Your task to perform on an android device: Open the web browser Image 0: 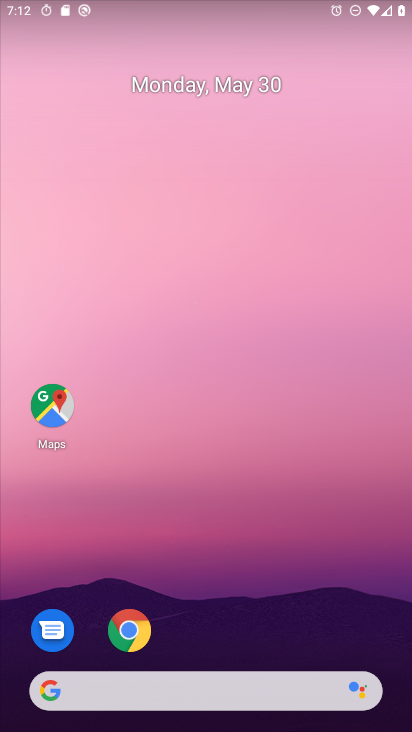
Step 0: drag from (382, 625) to (404, 482)
Your task to perform on an android device: Open the web browser Image 1: 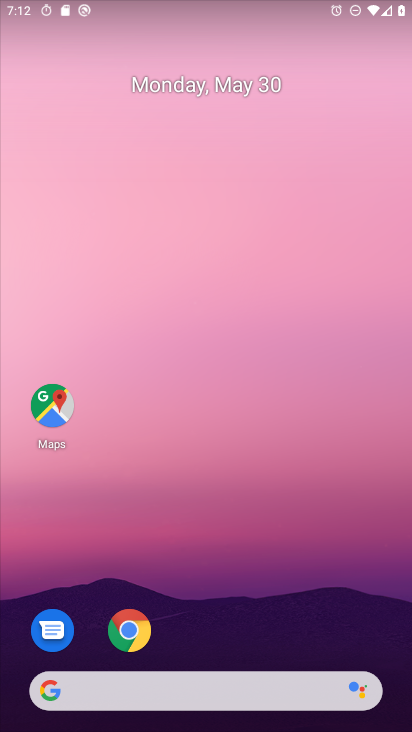
Step 1: click (212, 162)
Your task to perform on an android device: Open the web browser Image 2: 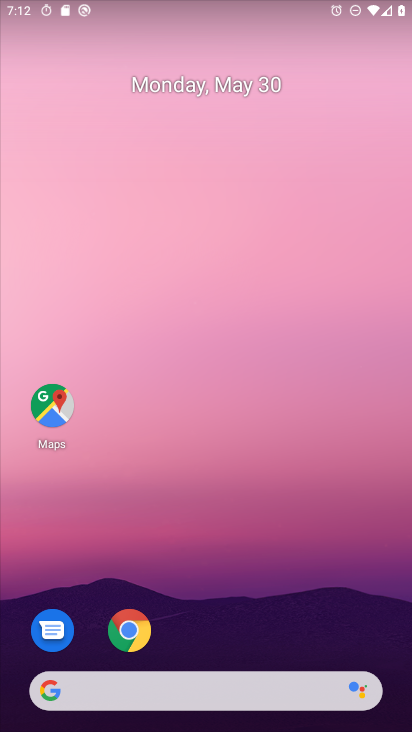
Step 2: drag from (336, 632) to (251, 4)
Your task to perform on an android device: Open the web browser Image 3: 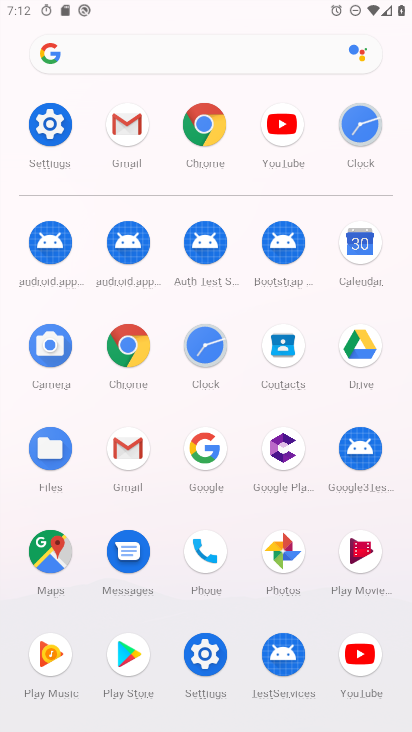
Step 3: click (223, 128)
Your task to perform on an android device: Open the web browser Image 4: 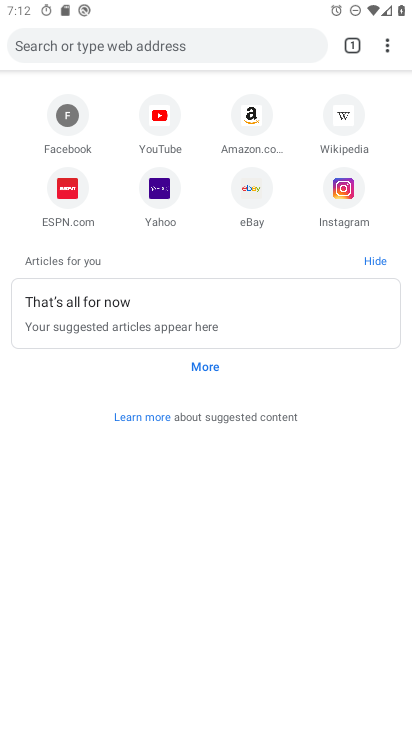
Step 4: task complete